Your task to perform on an android device: empty trash in the gmail app Image 0: 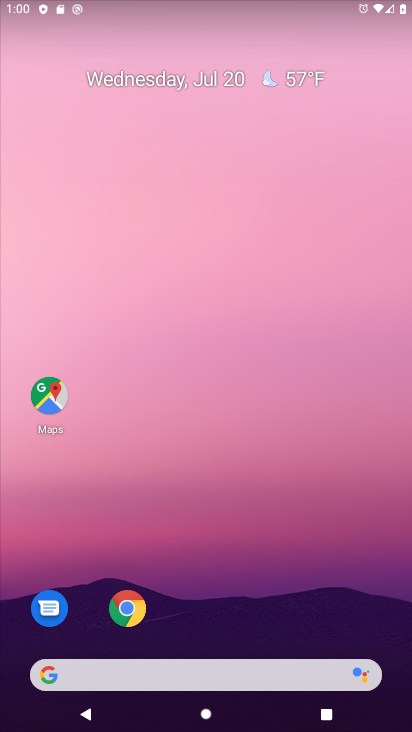
Step 0: drag from (258, 717) to (300, 255)
Your task to perform on an android device: empty trash in the gmail app Image 1: 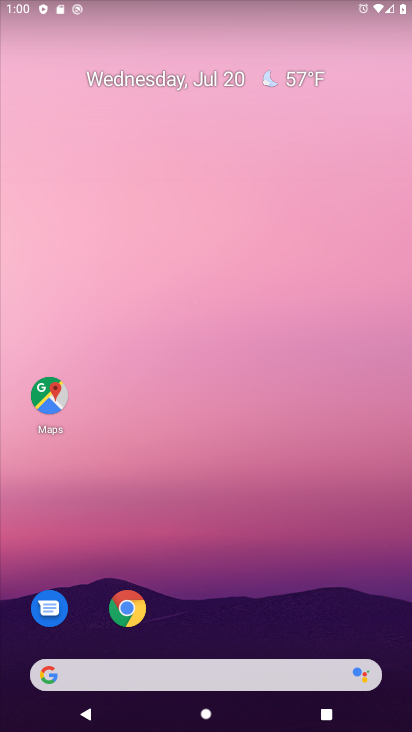
Step 1: drag from (252, 372) to (274, 141)
Your task to perform on an android device: empty trash in the gmail app Image 2: 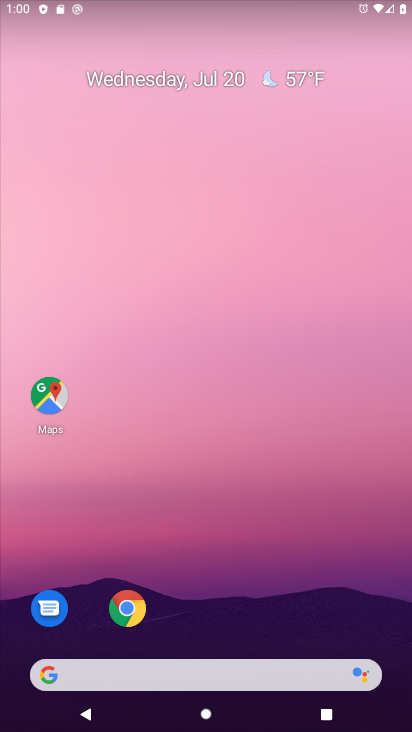
Step 2: drag from (245, 639) to (285, 12)
Your task to perform on an android device: empty trash in the gmail app Image 3: 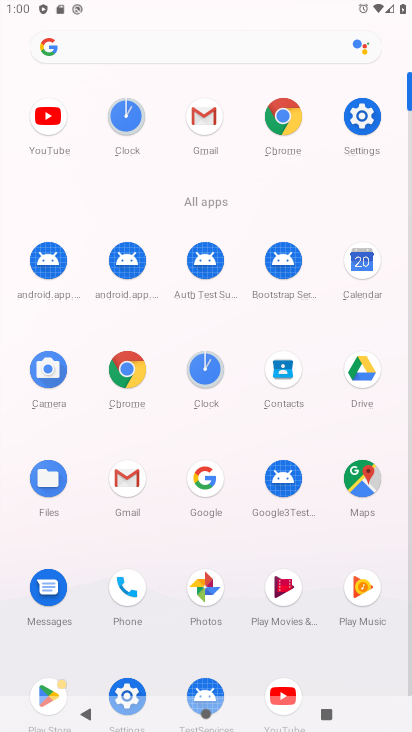
Step 3: click (198, 123)
Your task to perform on an android device: empty trash in the gmail app Image 4: 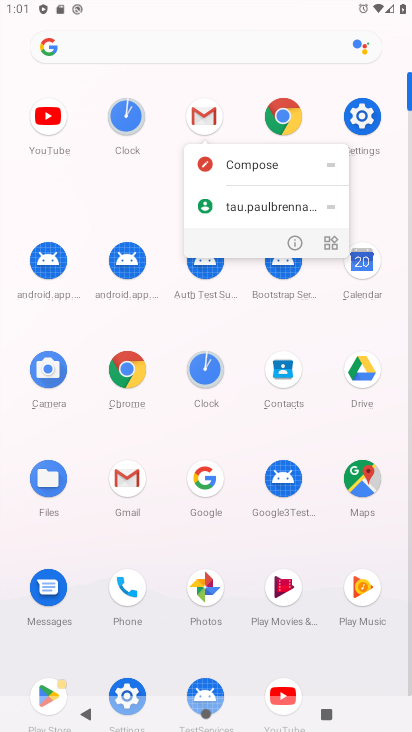
Step 4: click (197, 112)
Your task to perform on an android device: empty trash in the gmail app Image 5: 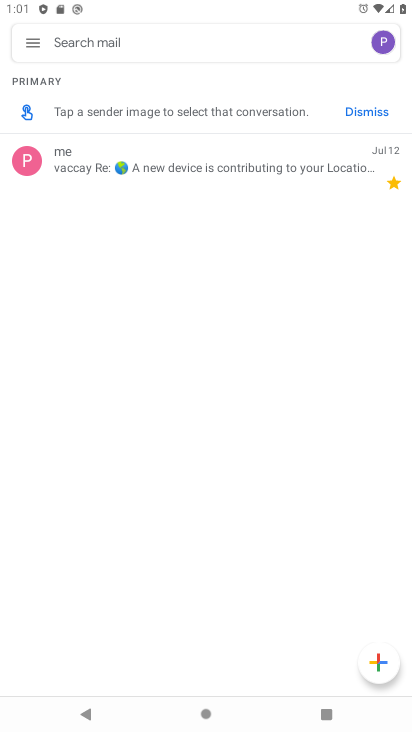
Step 5: click (39, 45)
Your task to perform on an android device: empty trash in the gmail app Image 6: 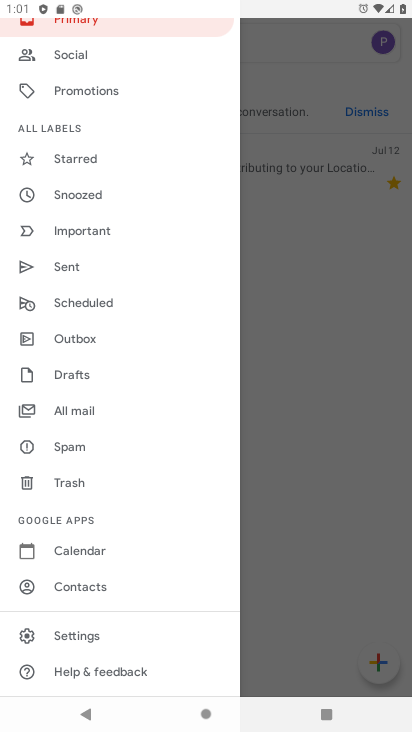
Step 6: click (85, 484)
Your task to perform on an android device: empty trash in the gmail app Image 7: 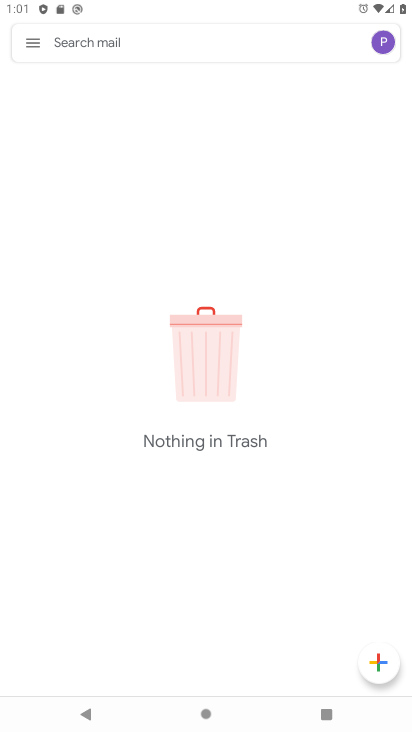
Step 7: task complete